Your task to perform on an android device: turn off airplane mode Image 0: 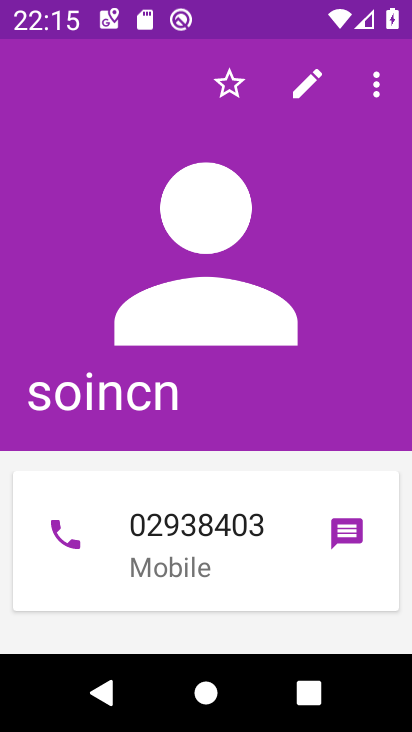
Step 0: press home button
Your task to perform on an android device: turn off airplane mode Image 1: 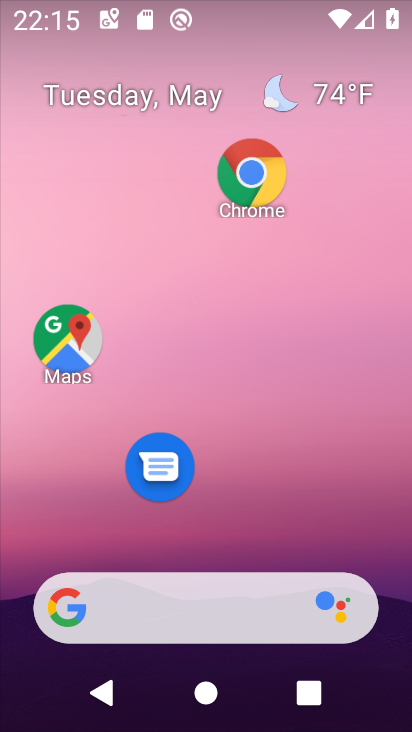
Step 1: drag from (369, 518) to (393, 152)
Your task to perform on an android device: turn off airplane mode Image 2: 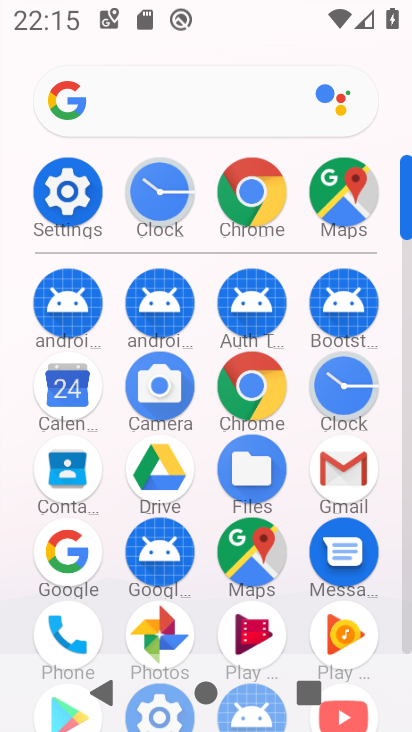
Step 2: click (70, 199)
Your task to perform on an android device: turn off airplane mode Image 3: 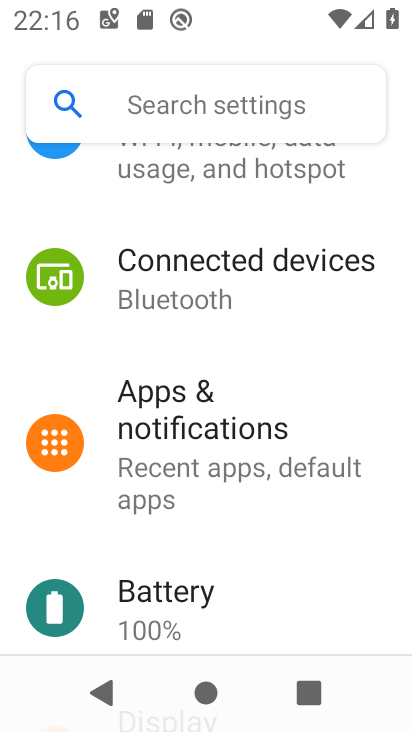
Step 3: drag from (233, 304) to (266, 538)
Your task to perform on an android device: turn off airplane mode Image 4: 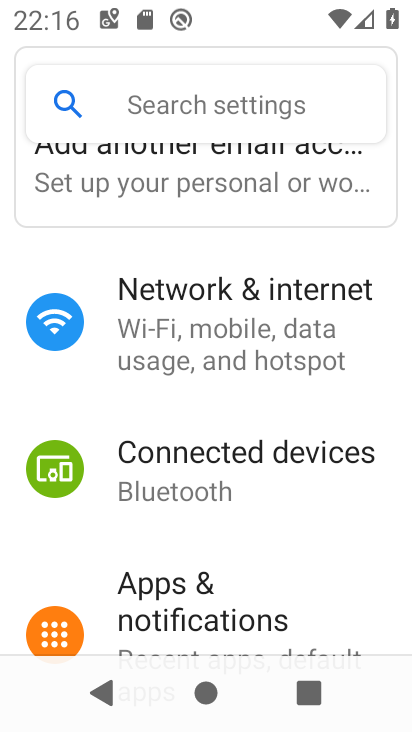
Step 4: click (244, 372)
Your task to perform on an android device: turn off airplane mode Image 5: 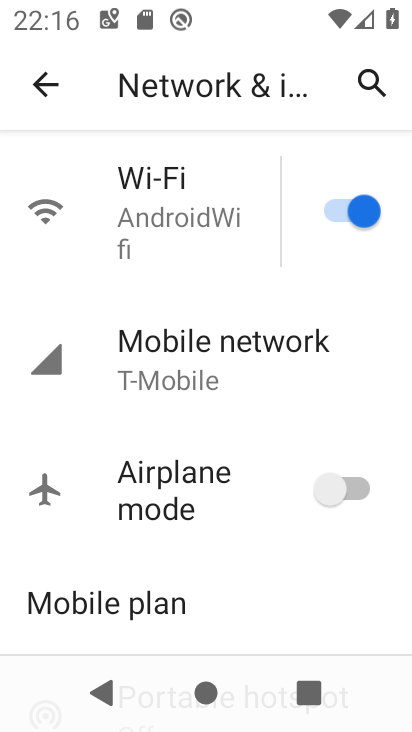
Step 5: task complete